Your task to perform on an android device: turn notification dots off Image 0: 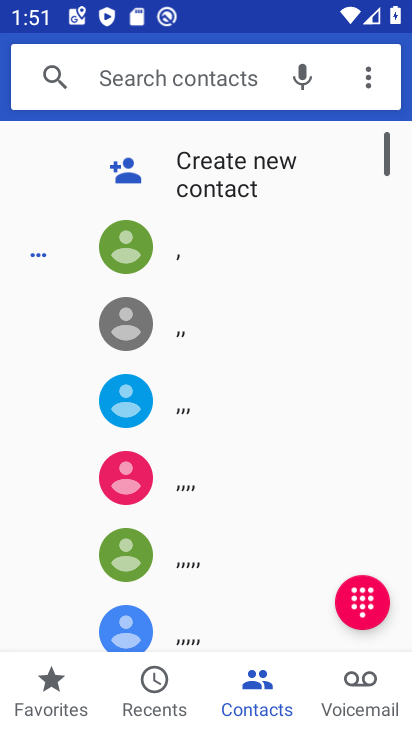
Step 0: press home button
Your task to perform on an android device: turn notification dots off Image 1: 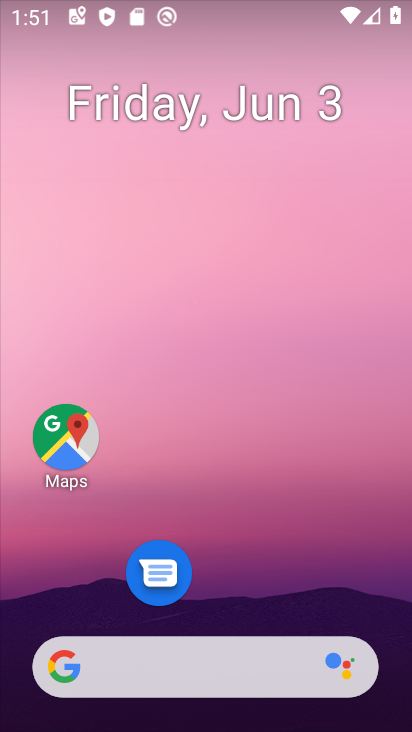
Step 1: drag from (322, 551) to (326, 74)
Your task to perform on an android device: turn notification dots off Image 2: 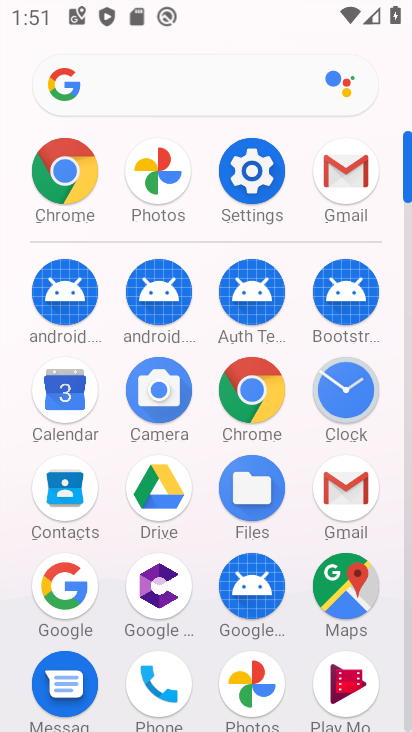
Step 2: click (268, 153)
Your task to perform on an android device: turn notification dots off Image 3: 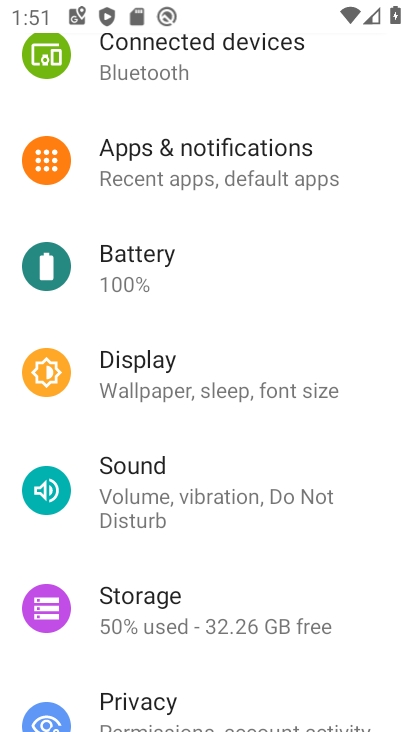
Step 3: click (216, 187)
Your task to perform on an android device: turn notification dots off Image 4: 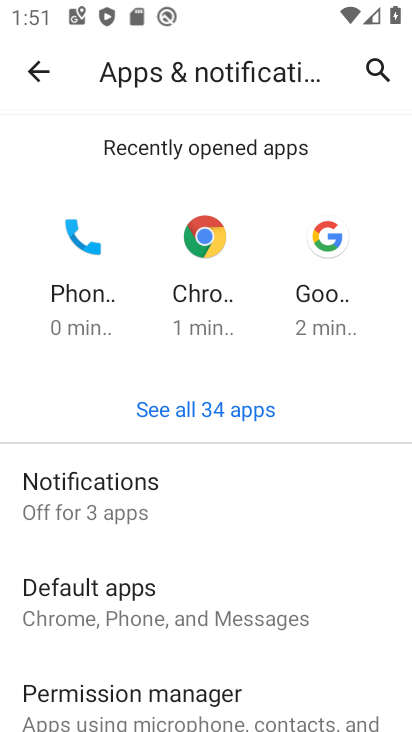
Step 4: click (200, 504)
Your task to perform on an android device: turn notification dots off Image 5: 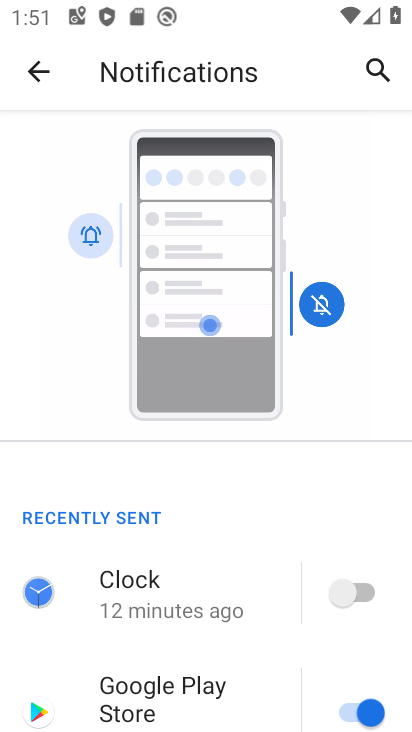
Step 5: drag from (228, 666) to (238, 185)
Your task to perform on an android device: turn notification dots off Image 6: 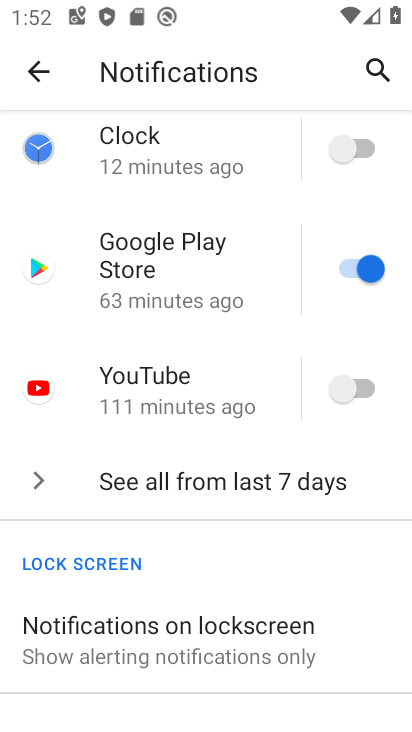
Step 6: drag from (261, 634) to (251, 330)
Your task to perform on an android device: turn notification dots off Image 7: 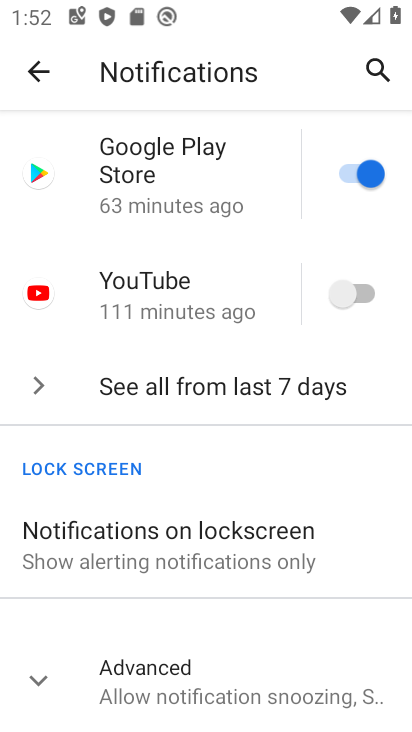
Step 7: click (177, 690)
Your task to perform on an android device: turn notification dots off Image 8: 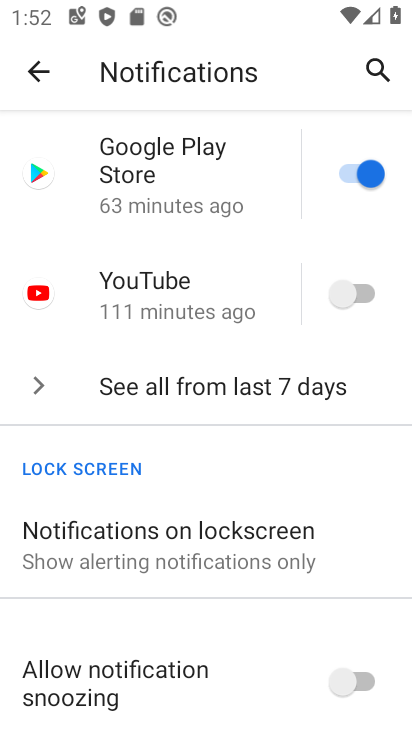
Step 8: task complete